Your task to perform on an android device: turn pop-ups on in chrome Image 0: 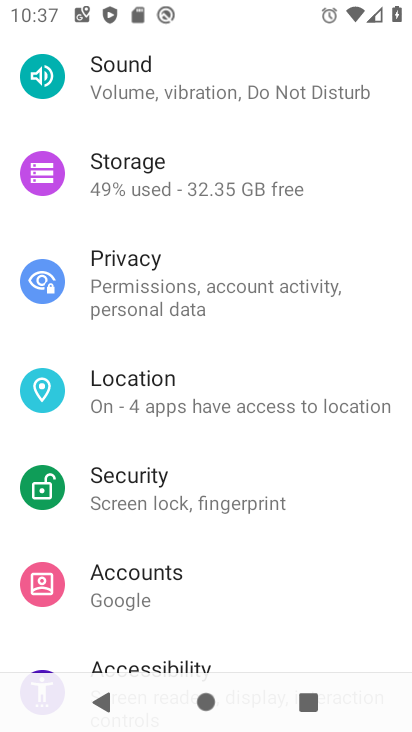
Step 0: press home button
Your task to perform on an android device: turn pop-ups on in chrome Image 1: 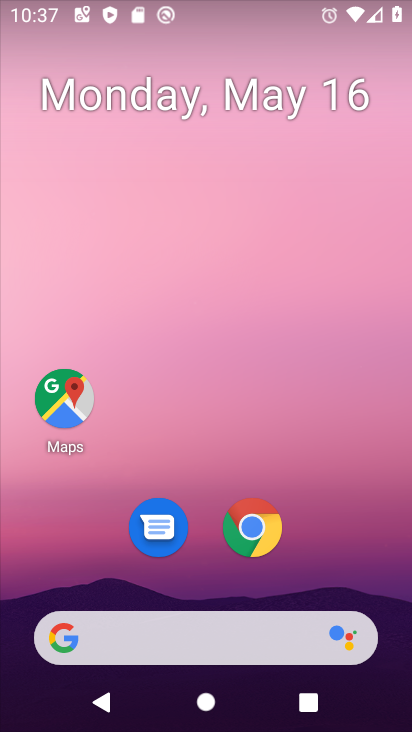
Step 1: click (253, 534)
Your task to perform on an android device: turn pop-ups on in chrome Image 2: 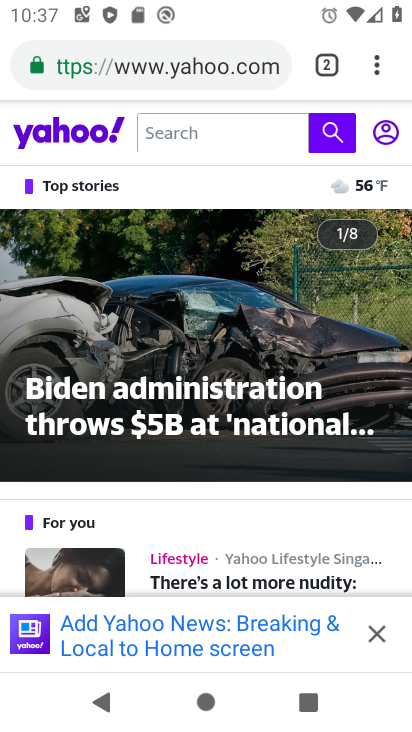
Step 2: click (379, 66)
Your task to perform on an android device: turn pop-ups on in chrome Image 3: 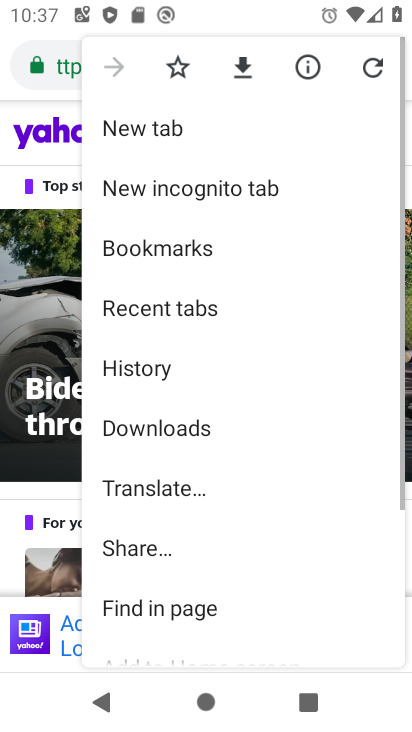
Step 3: drag from (203, 526) to (207, 169)
Your task to perform on an android device: turn pop-ups on in chrome Image 4: 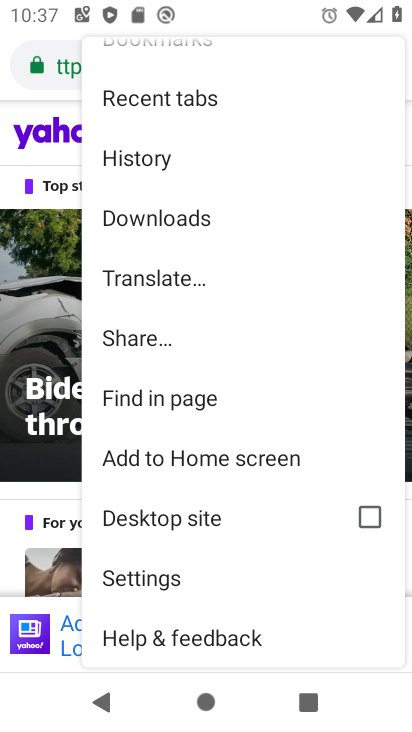
Step 4: click (129, 574)
Your task to perform on an android device: turn pop-ups on in chrome Image 5: 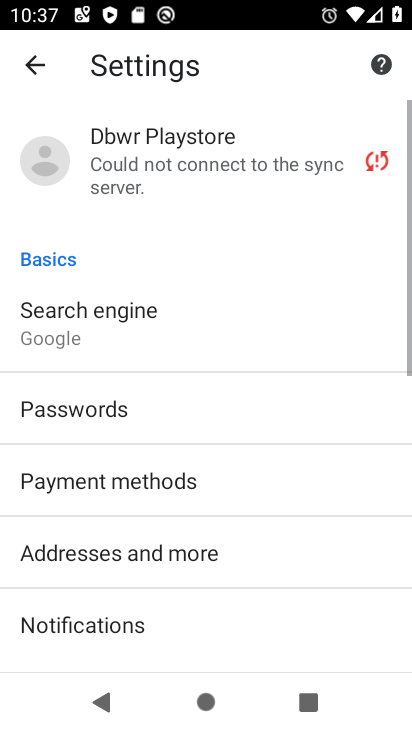
Step 5: drag from (162, 569) to (166, 182)
Your task to perform on an android device: turn pop-ups on in chrome Image 6: 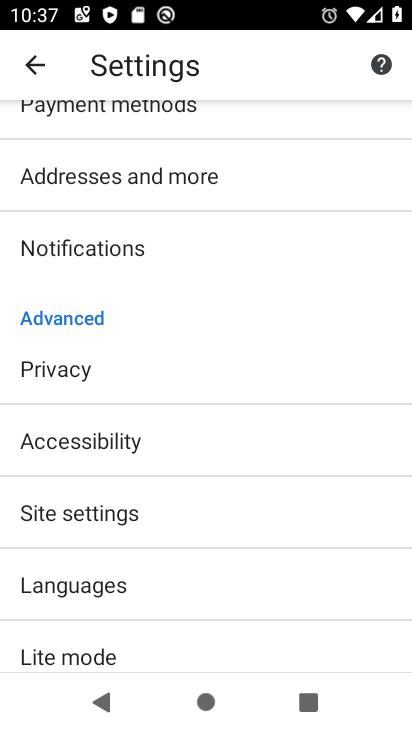
Step 6: click (93, 517)
Your task to perform on an android device: turn pop-ups on in chrome Image 7: 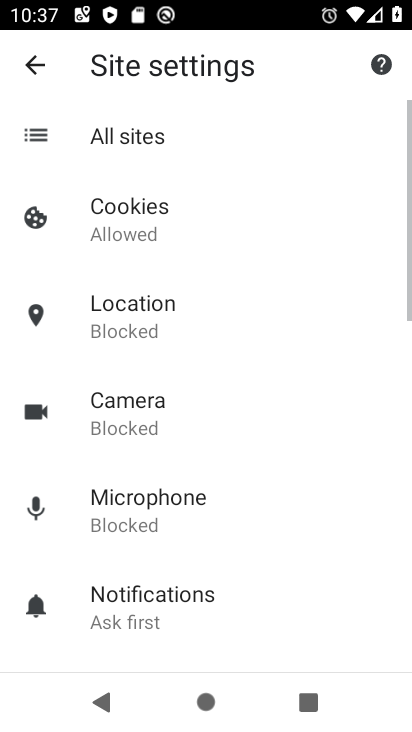
Step 7: drag from (285, 546) to (252, 245)
Your task to perform on an android device: turn pop-ups on in chrome Image 8: 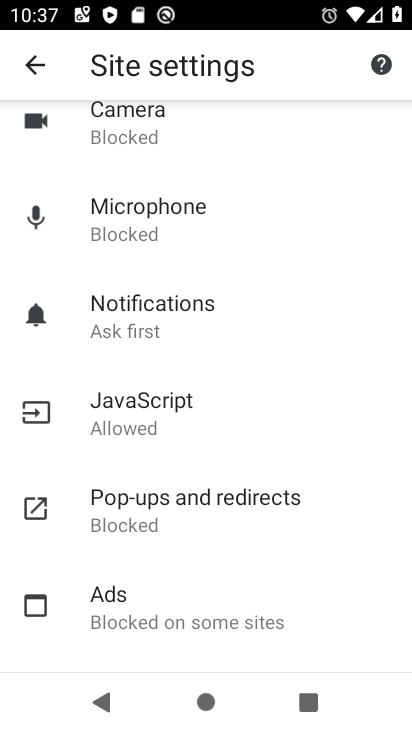
Step 8: click (107, 515)
Your task to perform on an android device: turn pop-ups on in chrome Image 9: 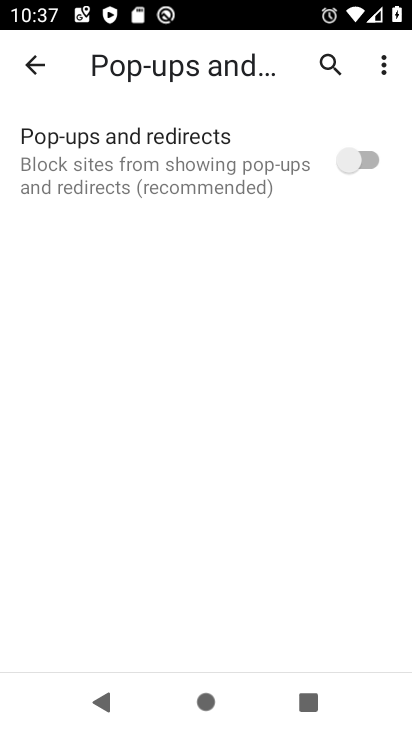
Step 9: click (359, 170)
Your task to perform on an android device: turn pop-ups on in chrome Image 10: 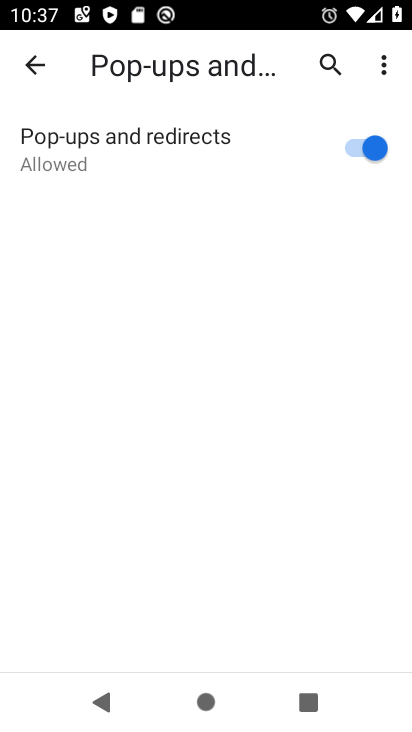
Step 10: task complete